Your task to perform on an android device: turn on showing notifications on the lock screen Image 0: 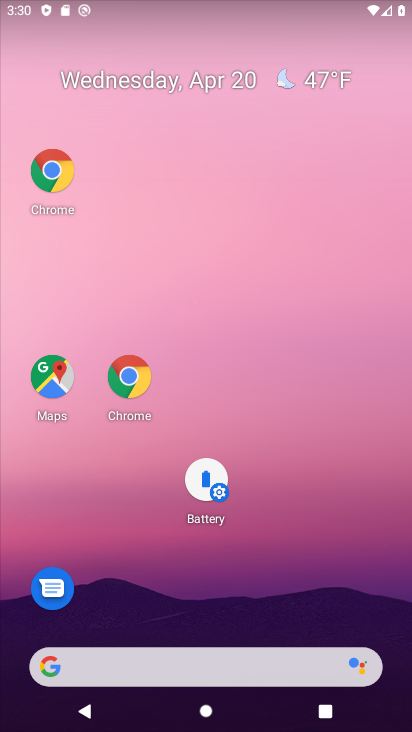
Step 0: drag from (339, 595) to (410, 93)
Your task to perform on an android device: turn on showing notifications on the lock screen Image 1: 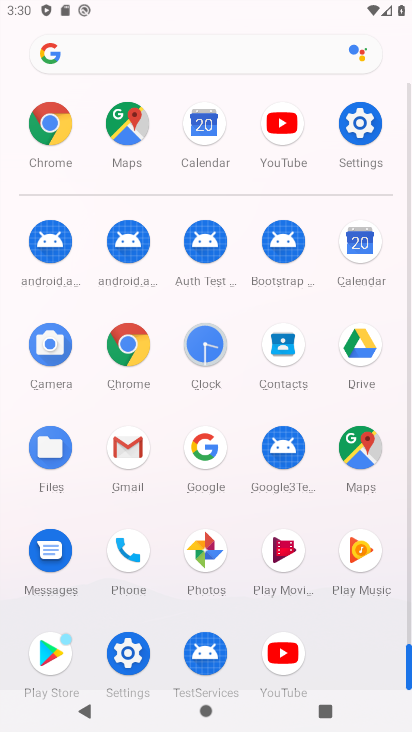
Step 1: drag from (238, 457) to (310, 213)
Your task to perform on an android device: turn on showing notifications on the lock screen Image 2: 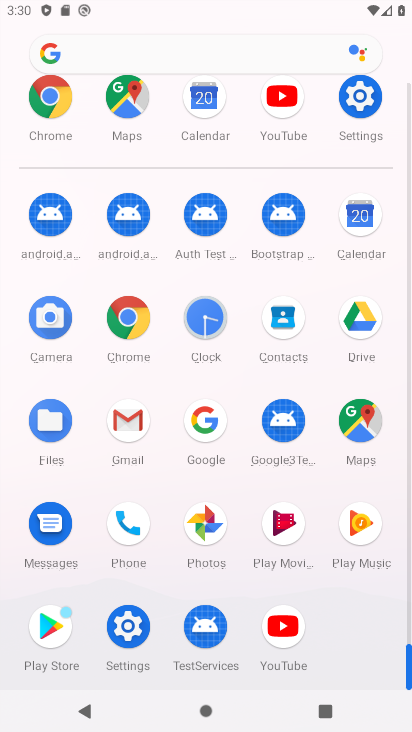
Step 2: click (125, 620)
Your task to perform on an android device: turn on showing notifications on the lock screen Image 3: 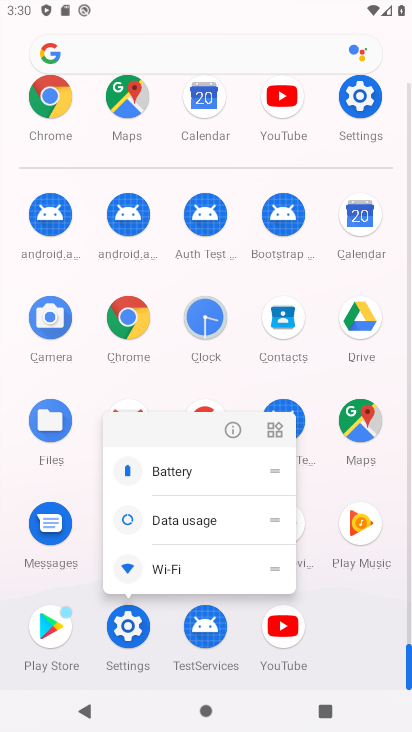
Step 3: click (127, 611)
Your task to perform on an android device: turn on showing notifications on the lock screen Image 4: 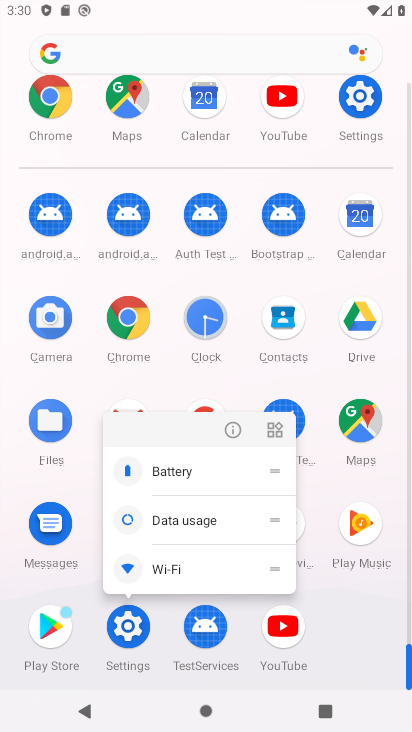
Step 4: click (127, 611)
Your task to perform on an android device: turn on showing notifications on the lock screen Image 5: 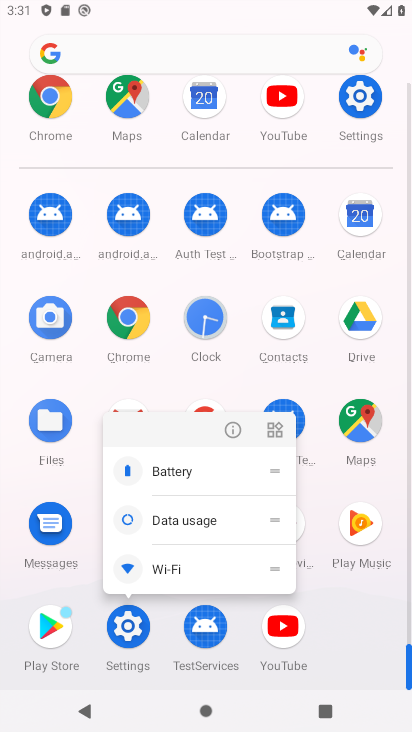
Step 5: click (122, 631)
Your task to perform on an android device: turn on showing notifications on the lock screen Image 6: 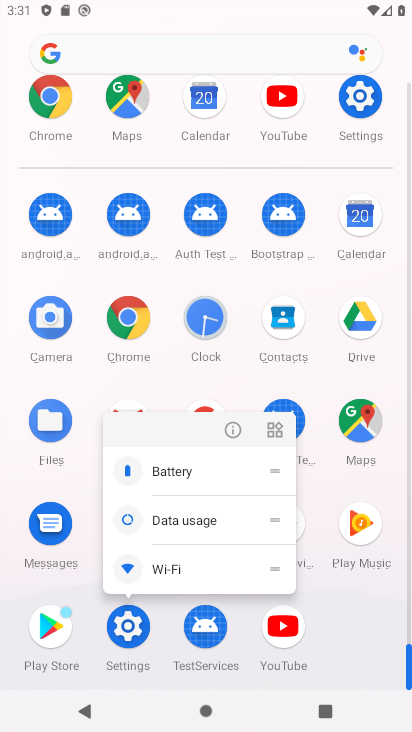
Step 6: click (139, 636)
Your task to perform on an android device: turn on showing notifications on the lock screen Image 7: 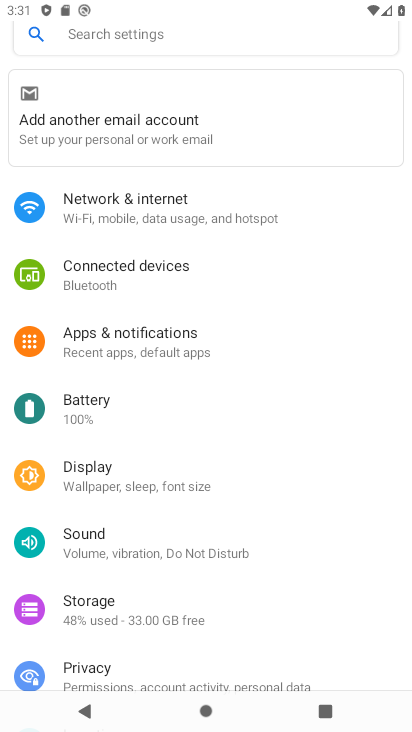
Step 7: click (192, 330)
Your task to perform on an android device: turn on showing notifications on the lock screen Image 8: 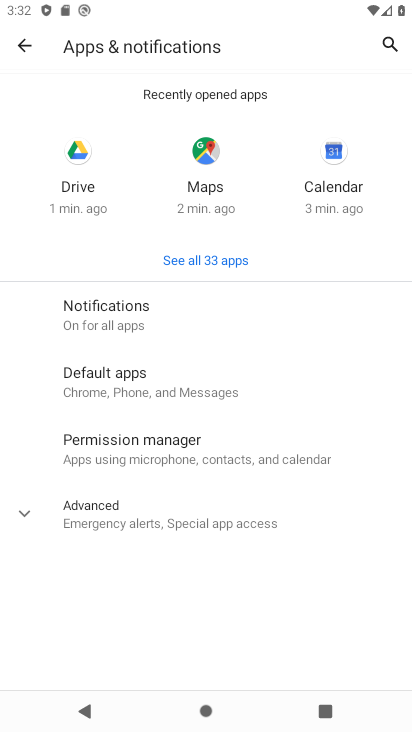
Step 8: click (168, 309)
Your task to perform on an android device: turn on showing notifications on the lock screen Image 9: 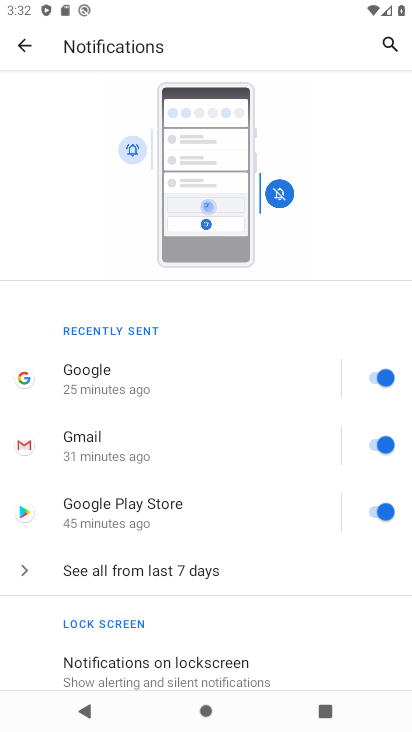
Step 9: drag from (281, 554) to (218, 230)
Your task to perform on an android device: turn on showing notifications on the lock screen Image 10: 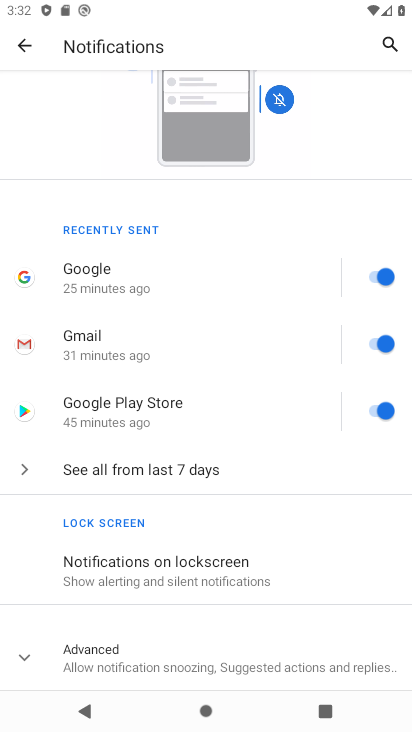
Step 10: click (235, 568)
Your task to perform on an android device: turn on showing notifications on the lock screen Image 11: 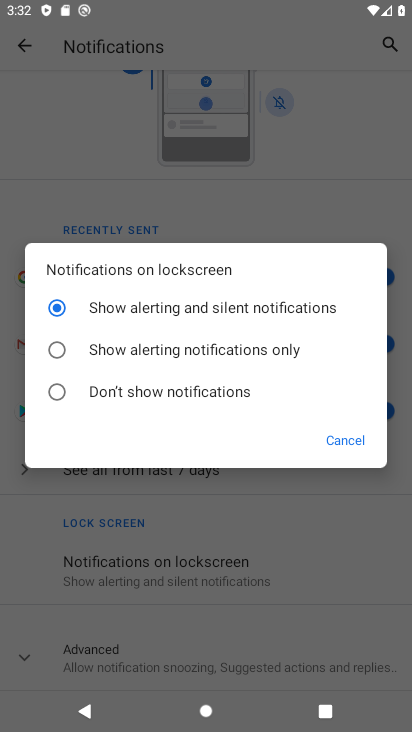
Step 11: task complete